Your task to perform on an android device: turn on notifications settings in the gmail app Image 0: 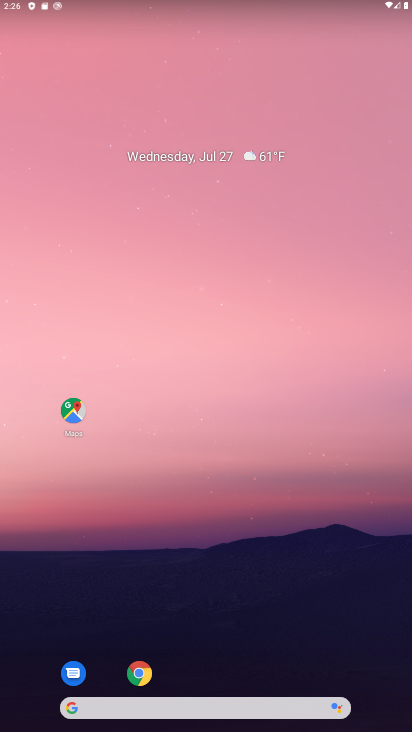
Step 0: drag from (47, 635) to (166, 325)
Your task to perform on an android device: turn on notifications settings in the gmail app Image 1: 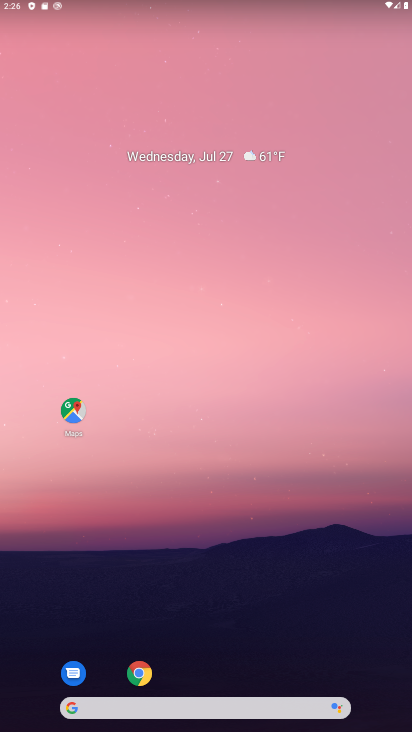
Step 1: drag from (35, 693) to (166, 61)
Your task to perform on an android device: turn on notifications settings in the gmail app Image 2: 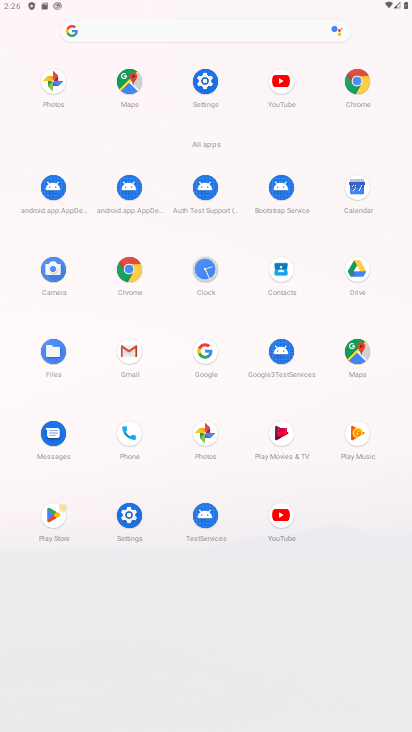
Step 2: click (131, 520)
Your task to perform on an android device: turn on notifications settings in the gmail app Image 3: 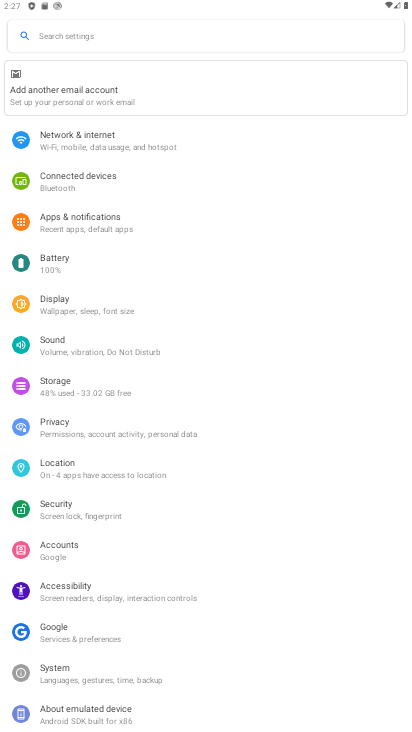
Step 3: click (101, 223)
Your task to perform on an android device: turn on notifications settings in the gmail app Image 4: 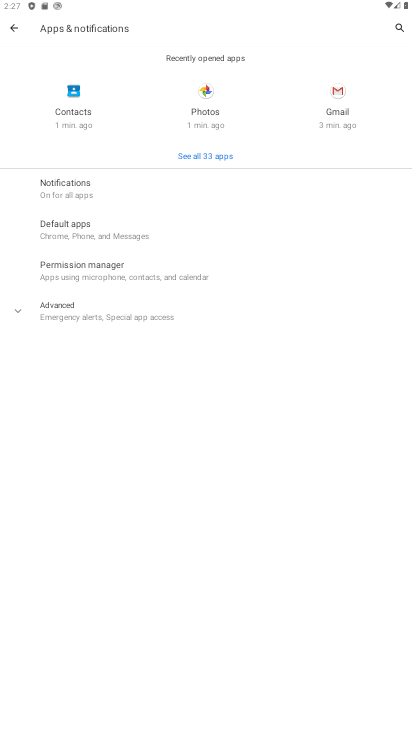
Step 4: task complete